Your task to perform on an android device: Open Chrome and go to the settings page Image 0: 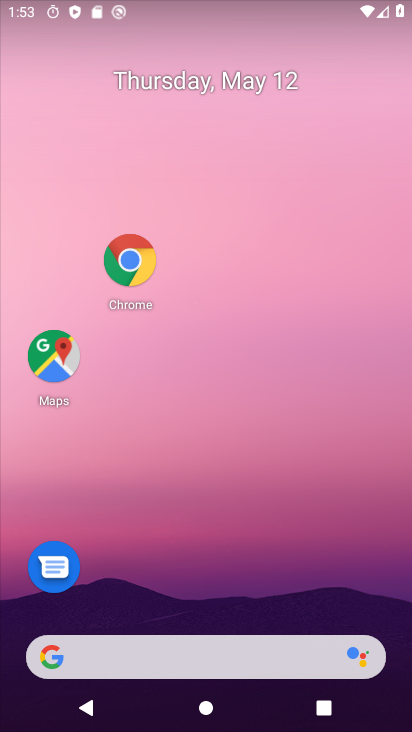
Step 0: click (127, 261)
Your task to perform on an android device: Open Chrome and go to the settings page Image 1: 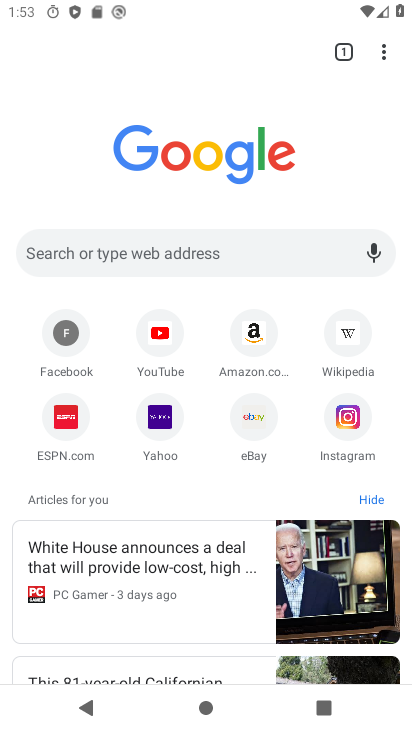
Step 1: click (382, 51)
Your task to perform on an android device: Open Chrome and go to the settings page Image 2: 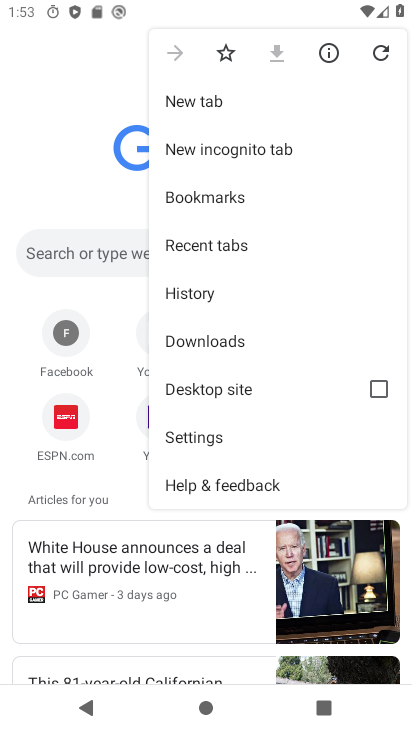
Step 2: click (205, 439)
Your task to perform on an android device: Open Chrome and go to the settings page Image 3: 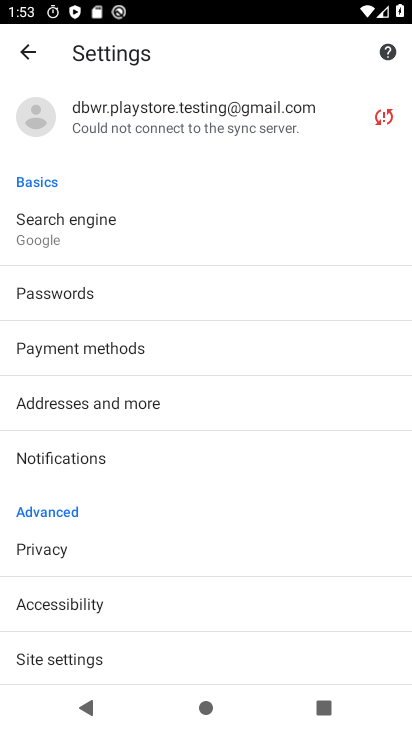
Step 3: task complete